Your task to perform on an android device: Open location settings Image 0: 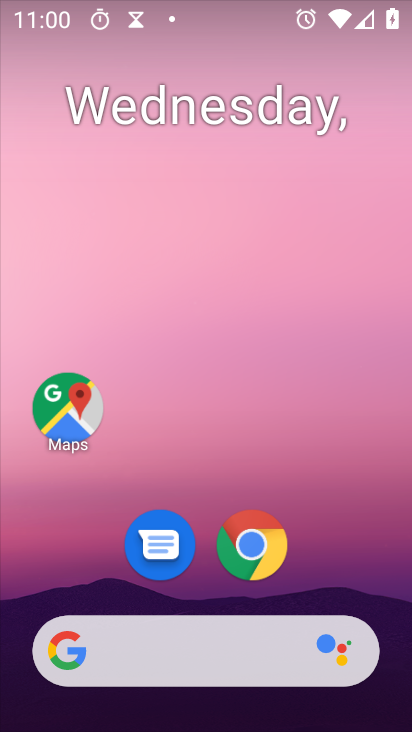
Step 0: press home button
Your task to perform on an android device: Open location settings Image 1: 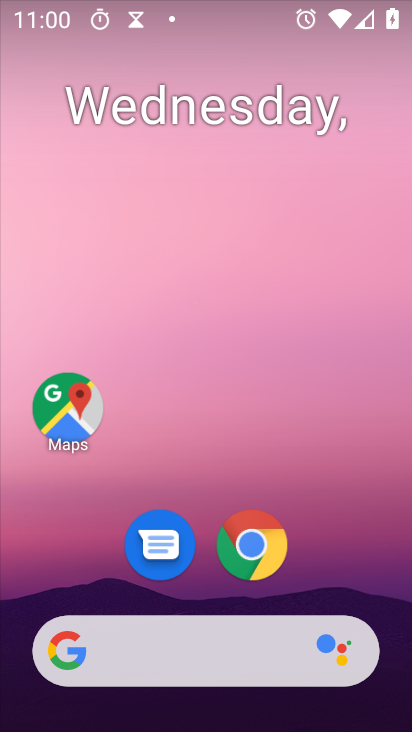
Step 1: drag from (196, 652) to (340, 135)
Your task to perform on an android device: Open location settings Image 2: 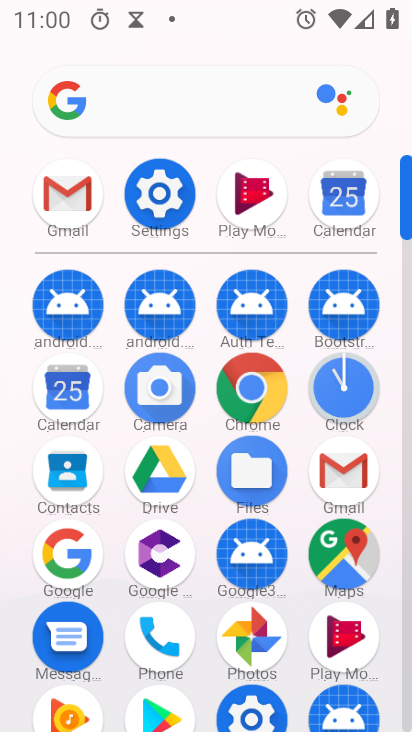
Step 2: click (163, 203)
Your task to perform on an android device: Open location settings Image 3: 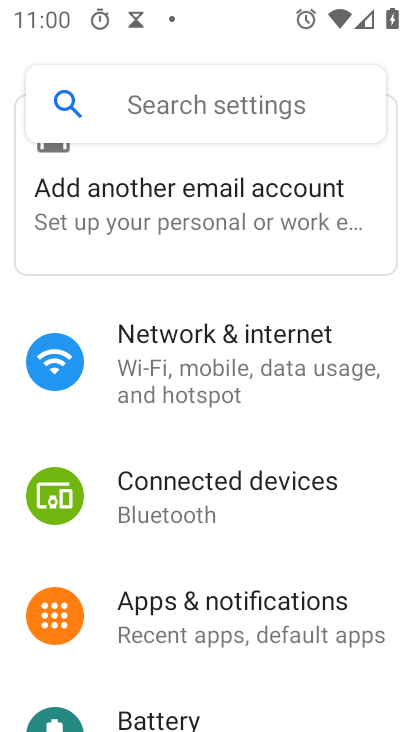
Step 3: drag from (262, 676) to (406, 182)
Your task to perform on an android device: Open location settings Image 4: 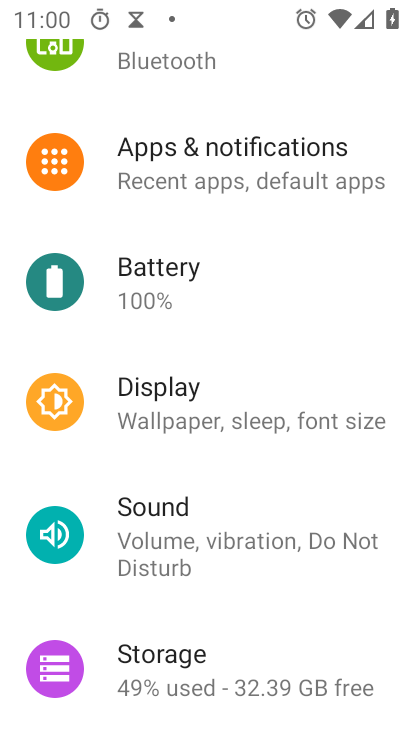
Step 4: drag from (250, 519) to (384, 103)
Your task to perform on an android device: Open location settings Image 5: 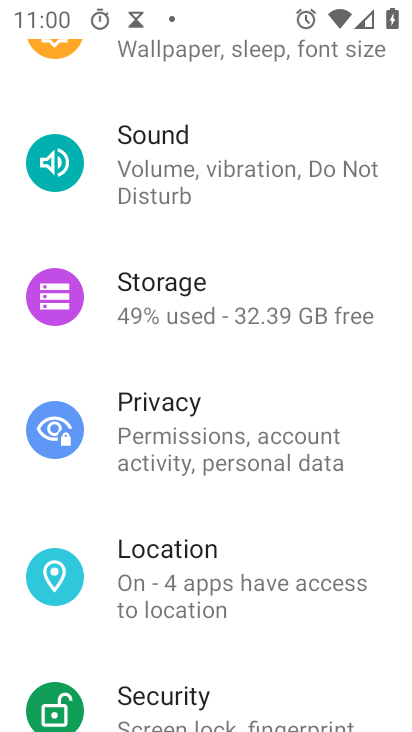
Step 5: click (208, 569)
Your task to perform on an android device: Open location settings Image 6: 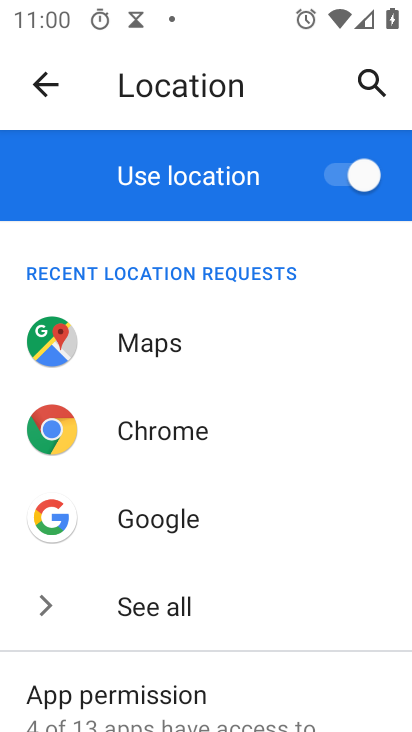
Step 6: task complete